Your task to perform on an android device: turn on the 12-hour format for clock Image 0: 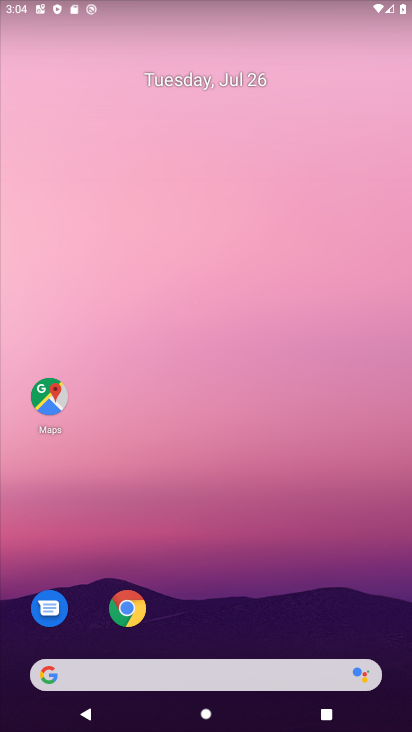
Step 0: press home button
Your task to perform on an android device: turn on the 12-hour format for clock Image 1: 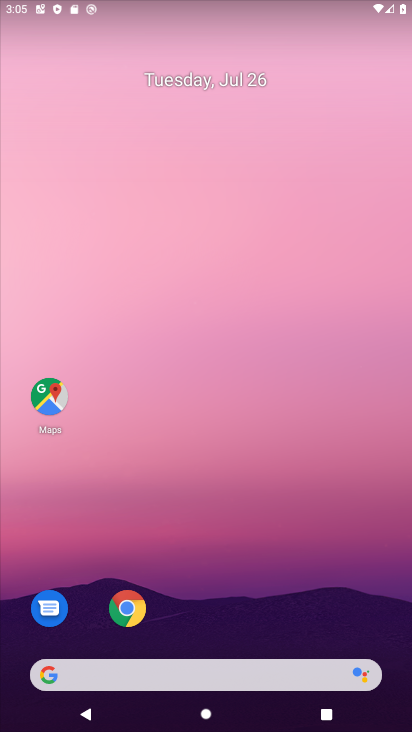
Step 1: drag from (270, 557) to (299, 234)
Your task to perform on an android device: turn on the 12-hour format for clock Image 2: 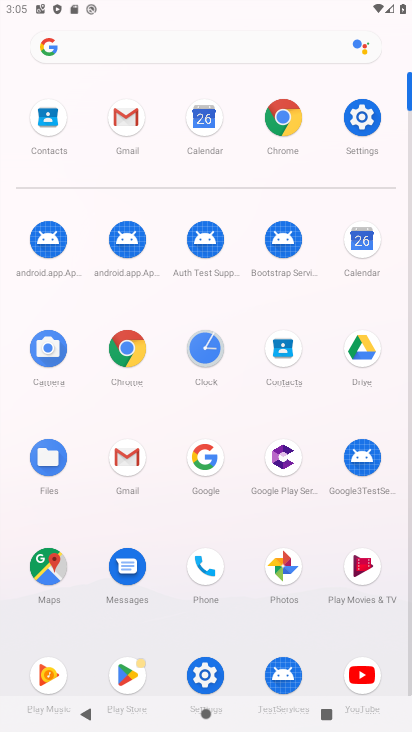
Step 2: click (213, 346)
Your task to perform on an android device: turn on the 12-hour format for clock Image 3: 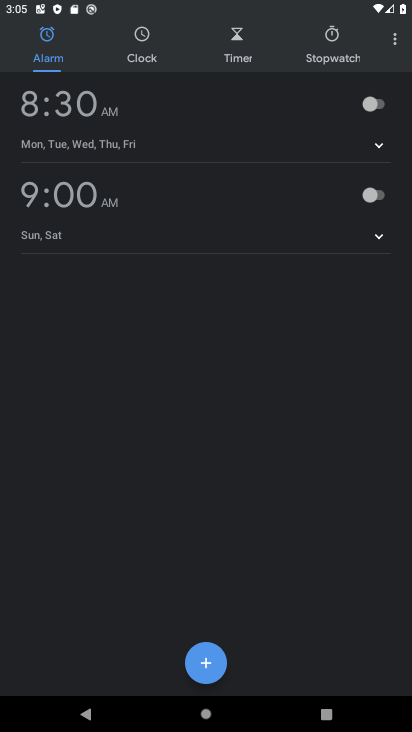
Step 3: task complete